Your task to perform on an android device: check data usage Image 0: 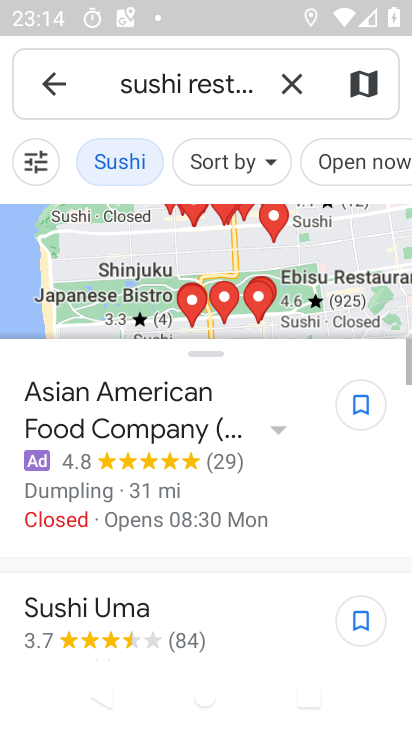
Step 0: press home button
Your task to perform on an android device: check data usage Image 1: 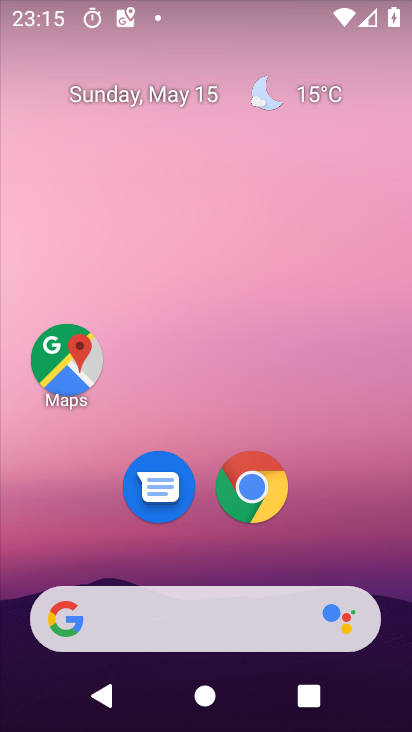
Step 1: click (367, 291)
Your task to perform on an android device: check data usage Image 2: 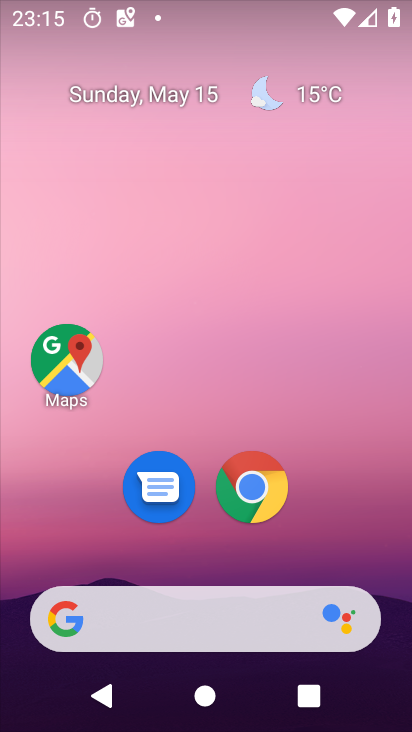
Step 2: drag from (394, 657) to (378, 215)
Your task to perform on an android device: check data usage Image 3: 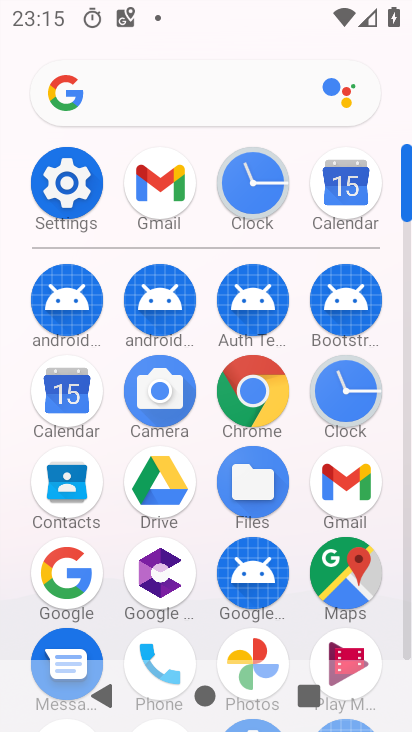
Step 3: click (65, 179)
Your task to perform on an android device: check data usage Image 4: 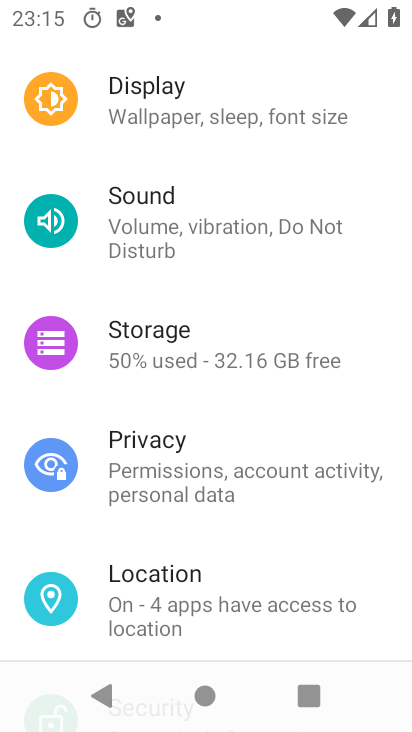
Step 4: drag from (372, 91) to (349, 587)
Your task to perform on an android device: check data usage Image 5: 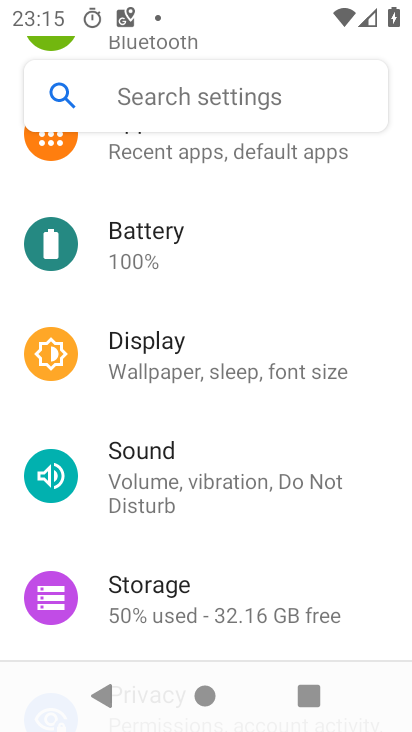
Step 5: drag from (382, 162) to (390, 552)
Your task to perform on an android device: check data usage Image 6: 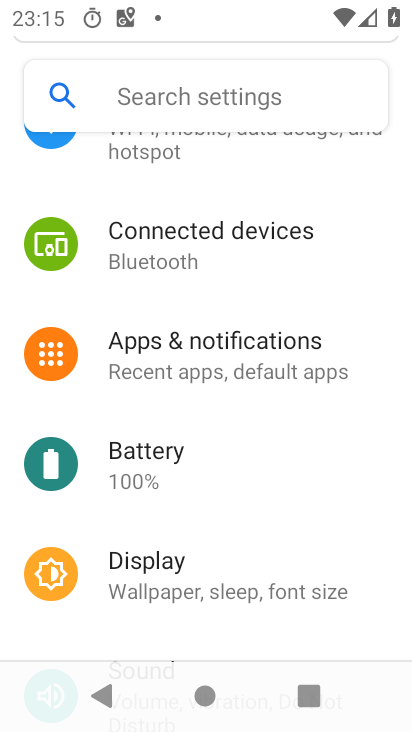
Step 6: drag from (388, 241) to (408, 530)
Your task to perform on an android device: check data usage Image 7: 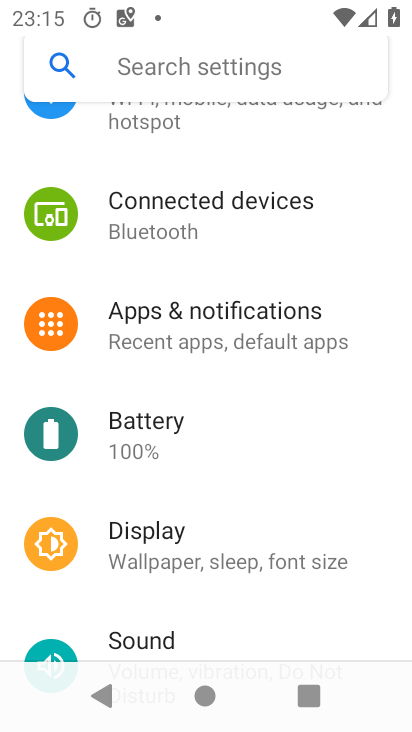
Step 7: drag from (354, 193) to (384, 549)
Your task to perform on an android device: check data usage Image 8: 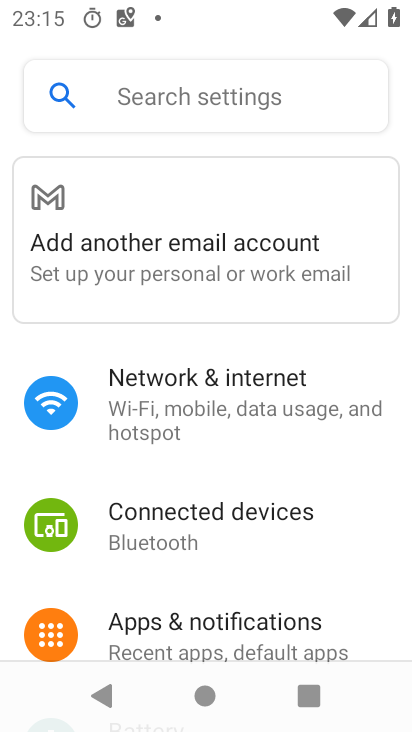
Step 8: click (158, 395)
Your task to perform on an android device: check data usage Image 9: 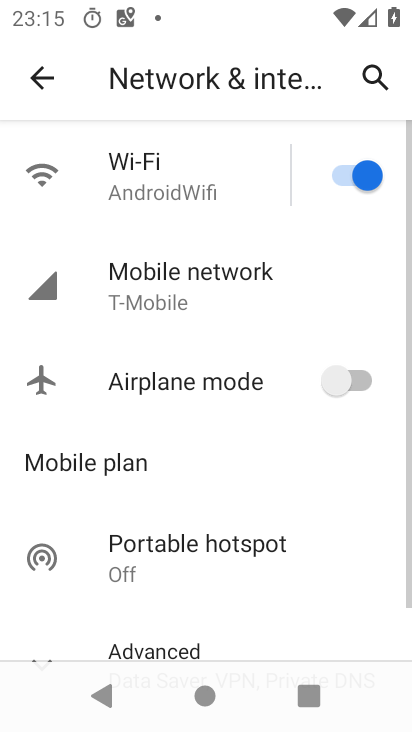
Step 9: click (144, 288)
Your task to perform on an android device: check data usage Image 10: 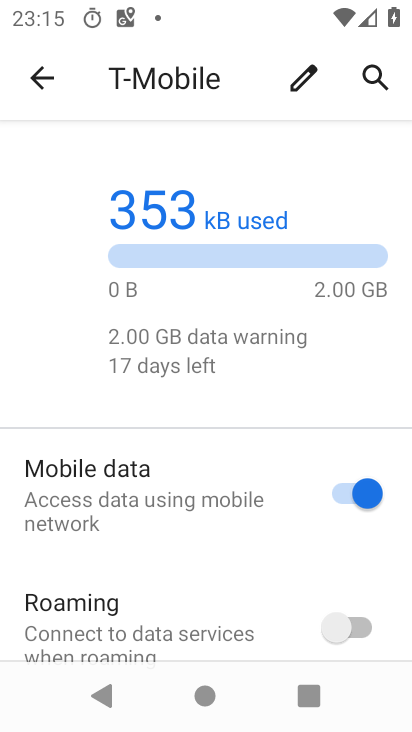
Step 10: task complete